Your task to perform on an android device: all mails in gmail Image 0: 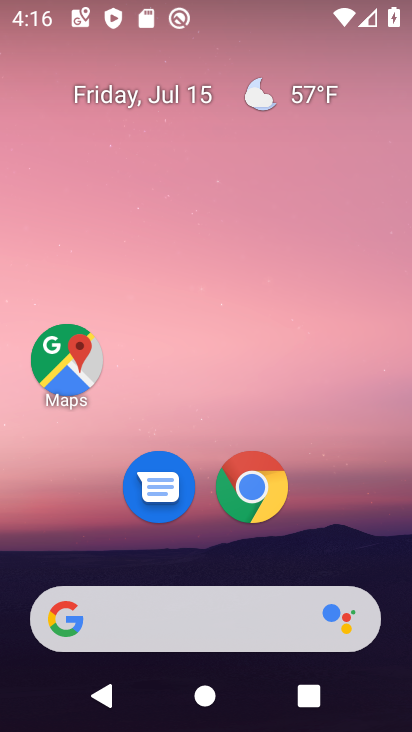
Step 0: drag from (191, 682) to (242, 56)
Your task to perform on an android device: all mails in gmail Image 1: 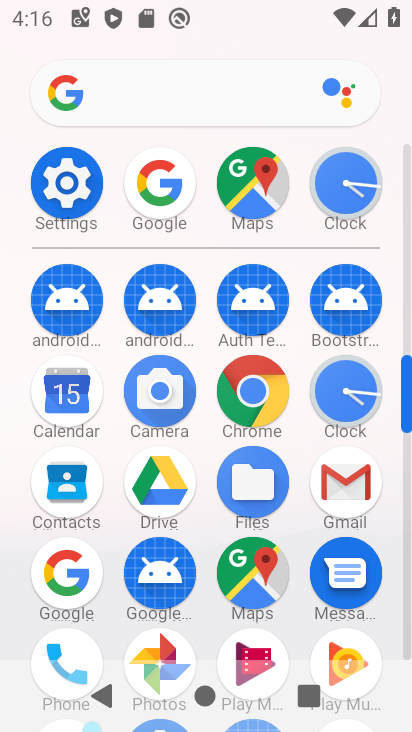
Step 1: click (342, 499)
Your task to perform on an android device: all mails in gmail Image 2: 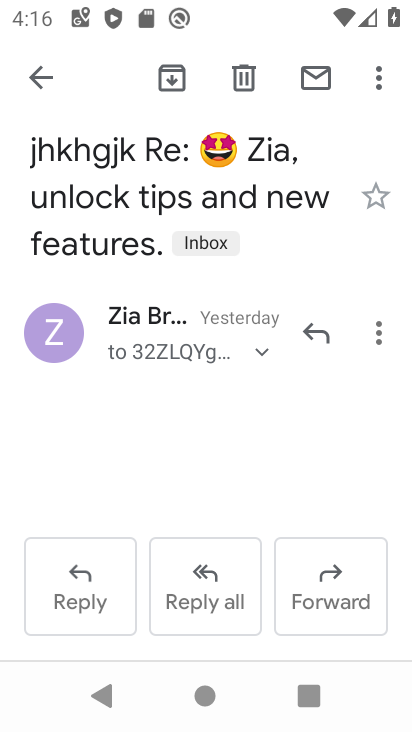
Step 2: click (43, 90)
Your task to perform on an android device: all mails in gmail Image 3: 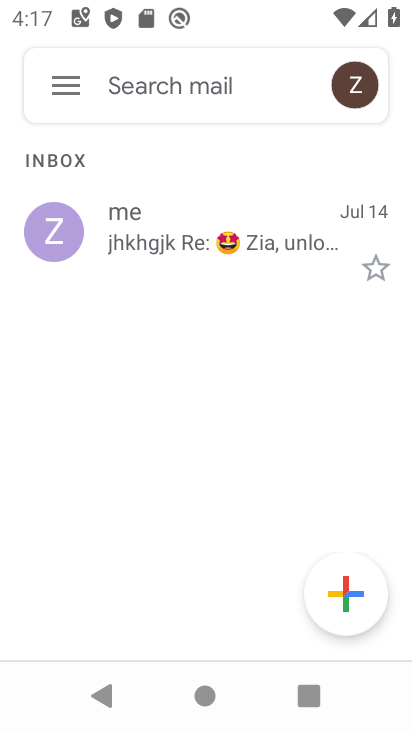
Step 3: click (71, 93)
Your task to perform on an android device: all mails in gmail Image 4: 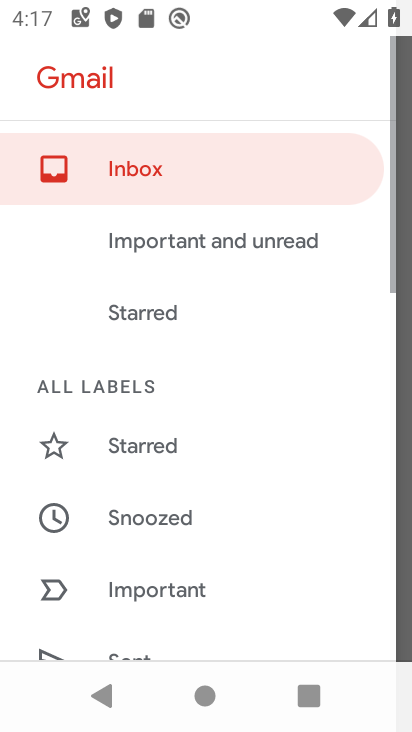
Step 4: drag from (172, 550) to (410, 32)
Your task to perform on an android device: all mails in gmail Image 5: 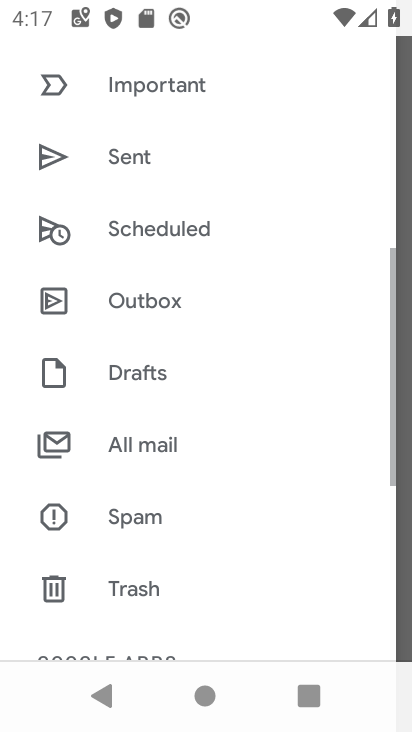
Step 5: drag from (190, 523) to (191, 266)
Your task to perform on an android device: all mails in gmail Image 6: 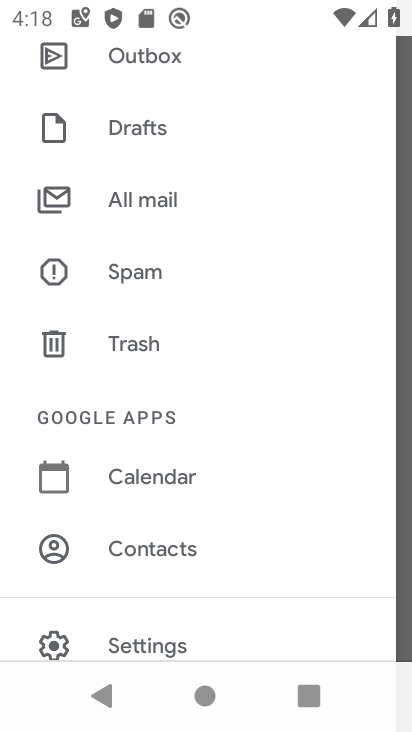
Step 6: click (142, 204)
Your task to perform on an android device: all mails in gmail Image 7: 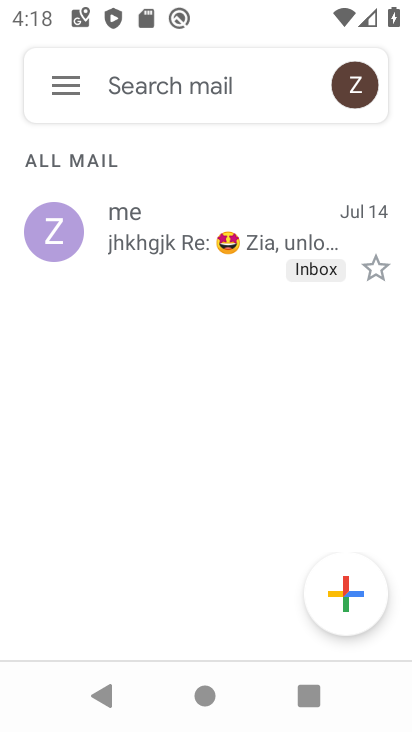
Step 7: task complete